Your task to perform on an android device: Go to Wikipedia Image 0: 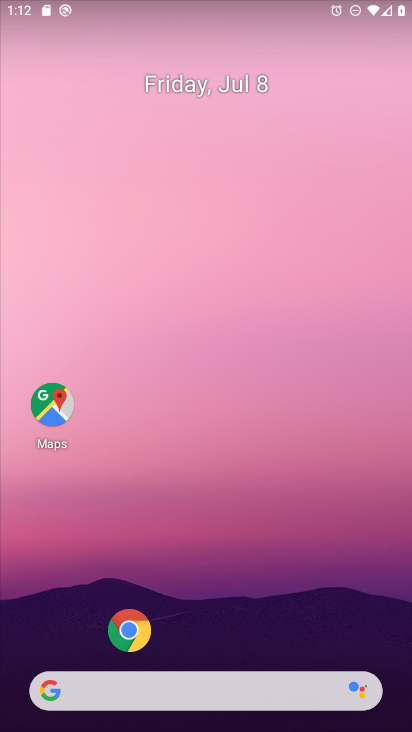
Step 0: drag from (186, 669) to (411, 508)
Your task to perform on an android device: Go to Wikipedia Image 1: 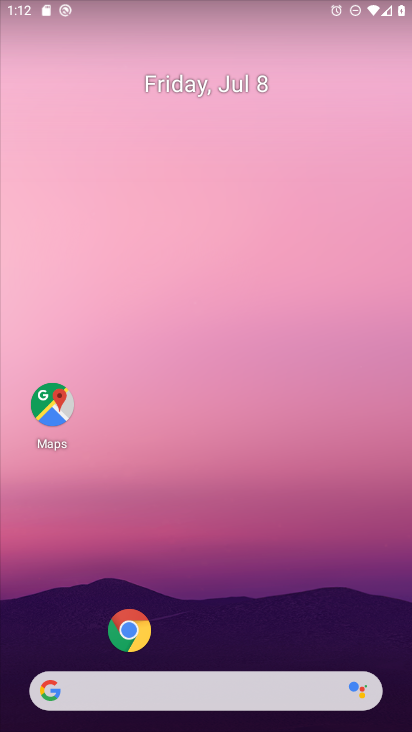
Step 1: click (135, 338)
Your task to perform on an android device: Go to Wikipedia Image 2: 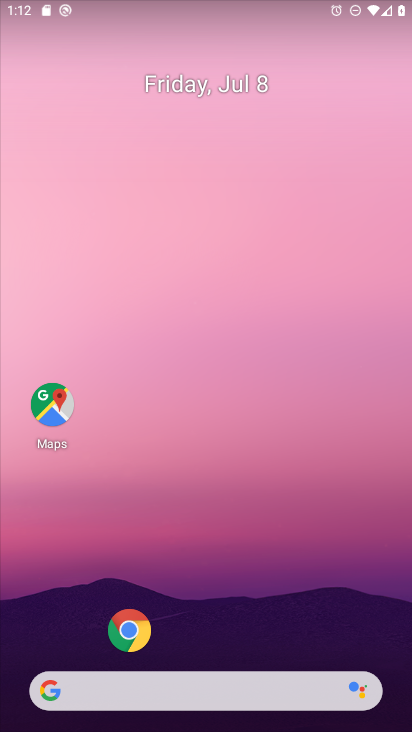
Step 2: drag from (309, 664) to (358, 86)
Your task to perform on an android device: Go to Wikipedia Image 3: 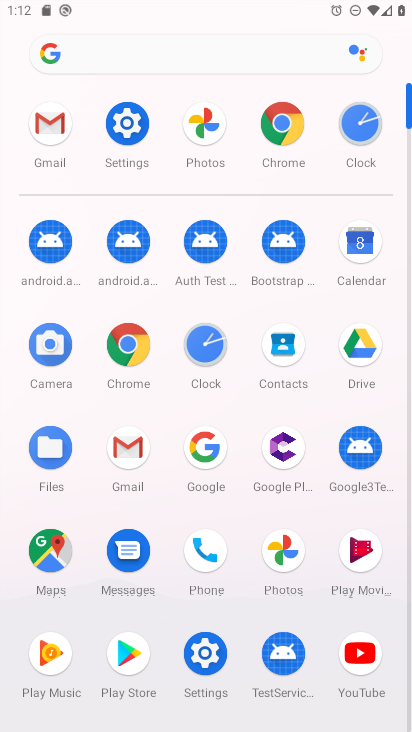
Step 3: click (130, 352)
Your task to perform on an android device: Go to Wikipedia Image 4: 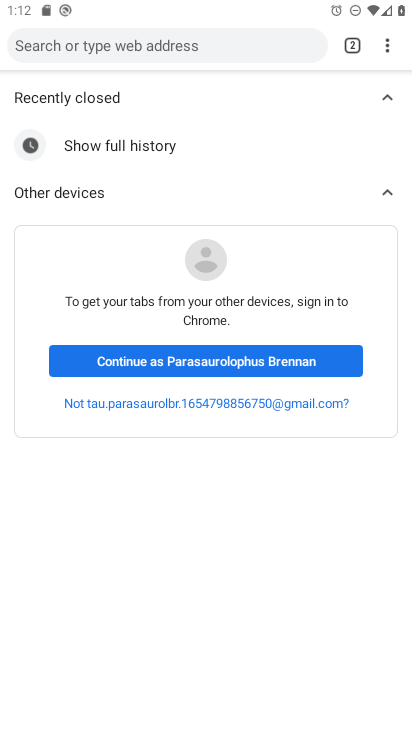
Step 4: press back button
Your task to perform on an android device: Go to Wikipedia Image 5: 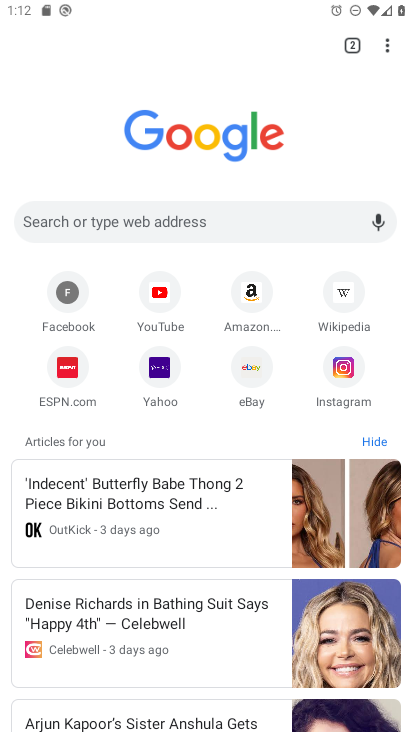
Step 5: drag from (335, 499) to (367, 383)
Your task to perform on an android device: Go to Wikipedia Image 6: 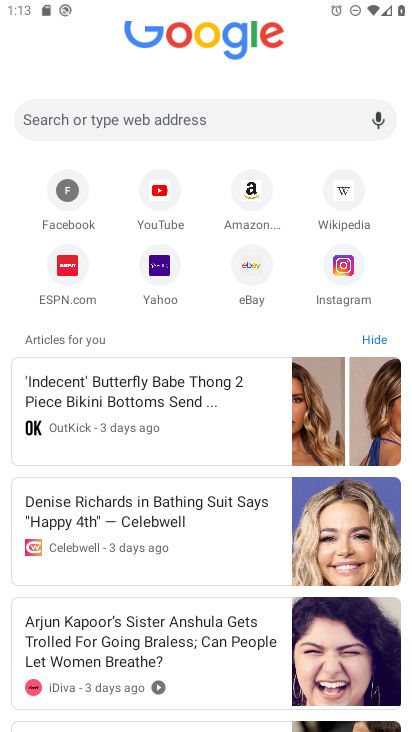
Step 6: click (328, 199)
Your task to perform on an android device: Go to Wikipedia Image 7: 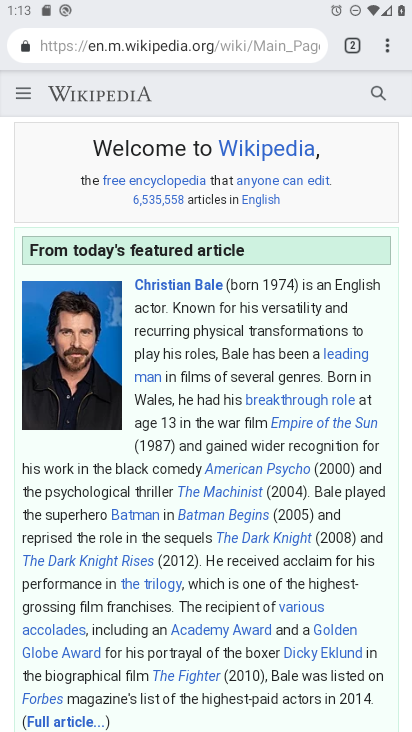
Step 7: task complete